Your task to perform on an android device: set default search engine in the chrome app Image 0: 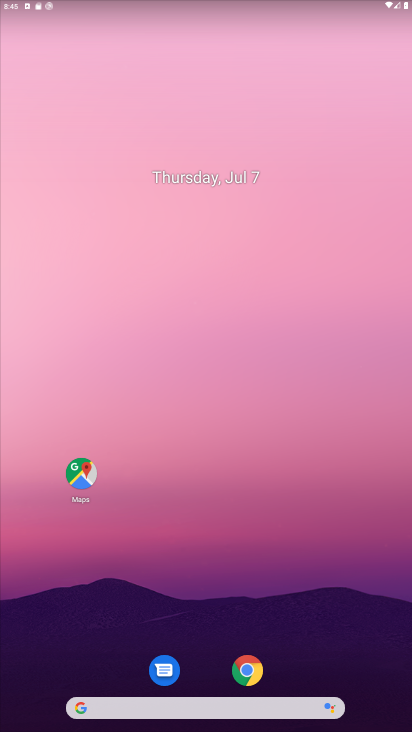
Step 0: click (237, 672)
Your task to perform on an android device: set default search engine in the chrome app Image 1: 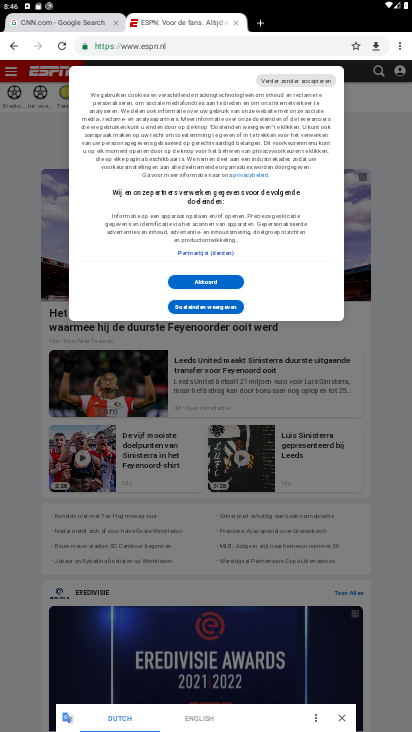
Step 1: click (396, 45)
Your task to perform on an android device: set default search engine in the chrome app Image 2: 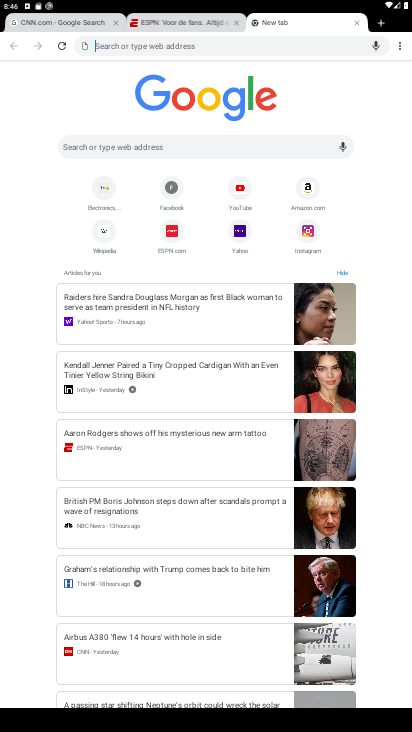
Step 2: click (397, 46)
Your task to perform on an android device: set default search engine in the chrome app Image 3: 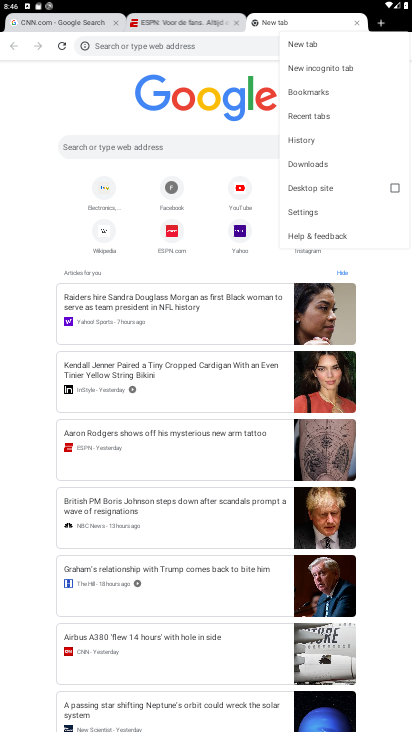
Step 3: click (321, 206)
Your task to perform on an android device: set default search engine in the chrome app Image 4: 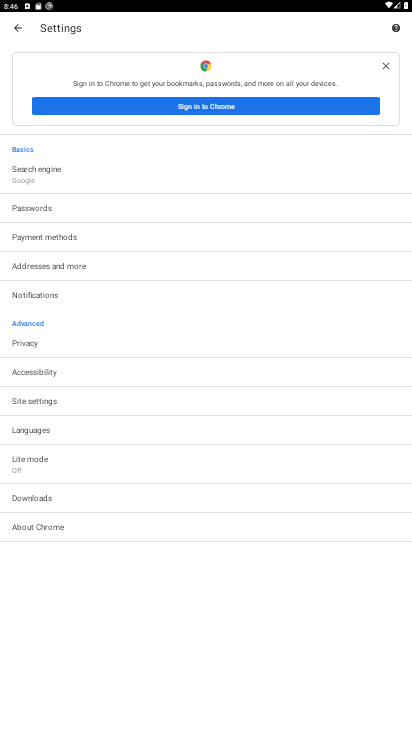
Step 4: click (47, 163)
Your task to perform on an android device: set default search engine in the chrome app Image 5: 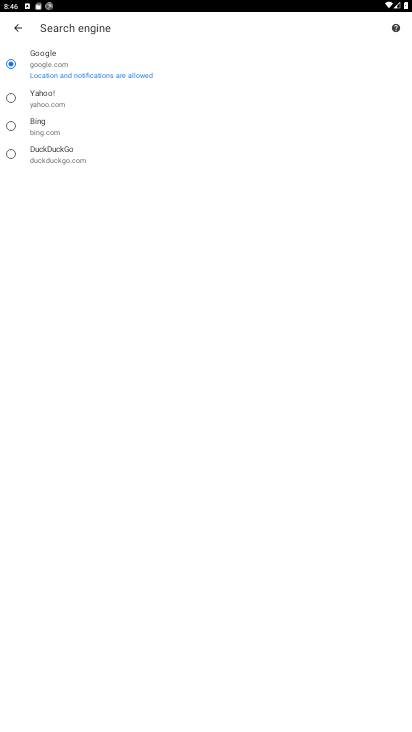
Step 5: task complete